Your task to perform on an android device: read, delete, or share a saved page in the chrome app Image 0: 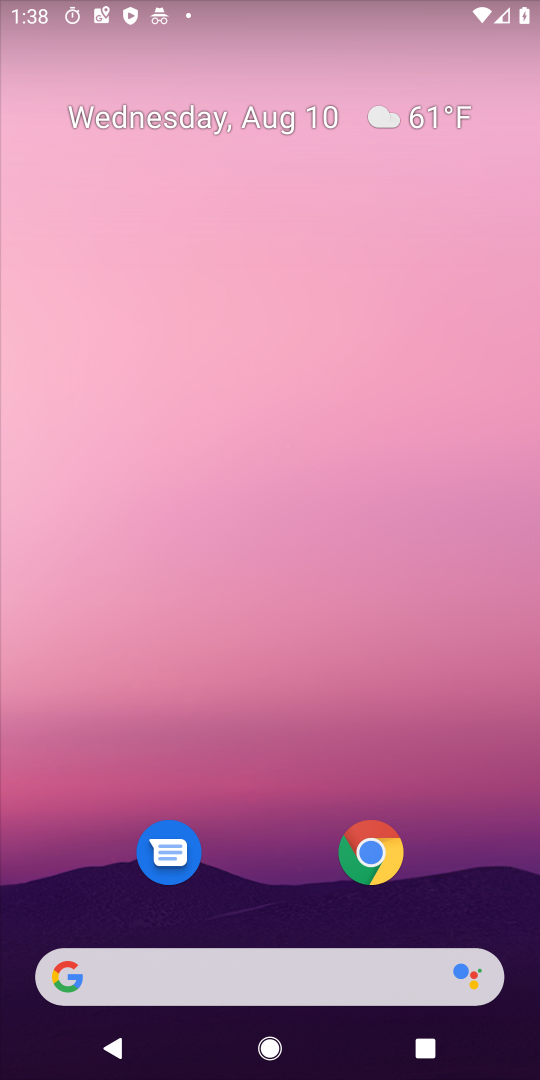
Step 0: drag from (261, 849) to (390, 109)
Your task to perform on an android device: read, delete, or share a saved page in the chrome app Image 1: 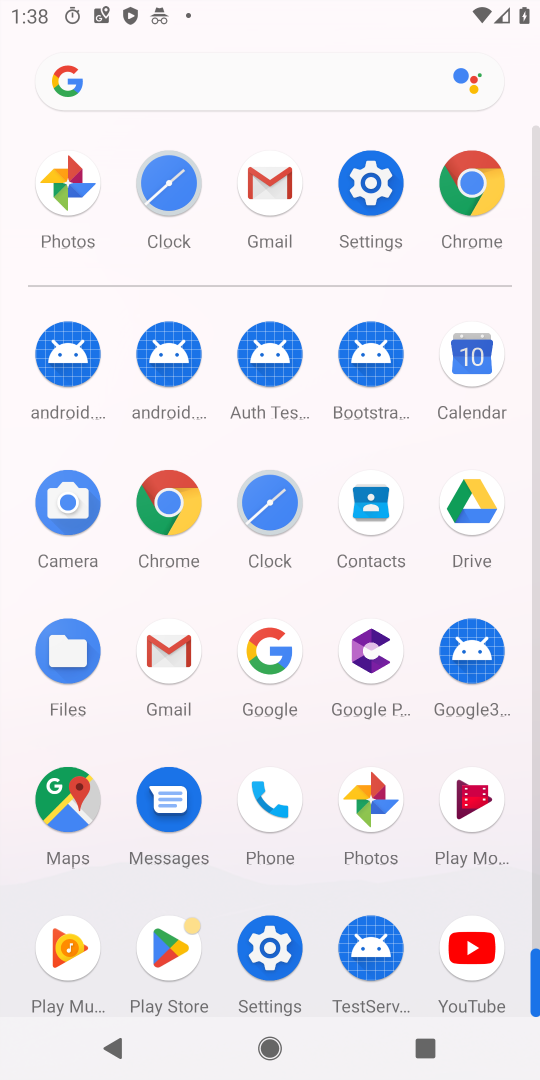
Step 1: click (171, 499)
Your task to perform on an android device: read, delete, or share a saved page in the chrome app Image 2: 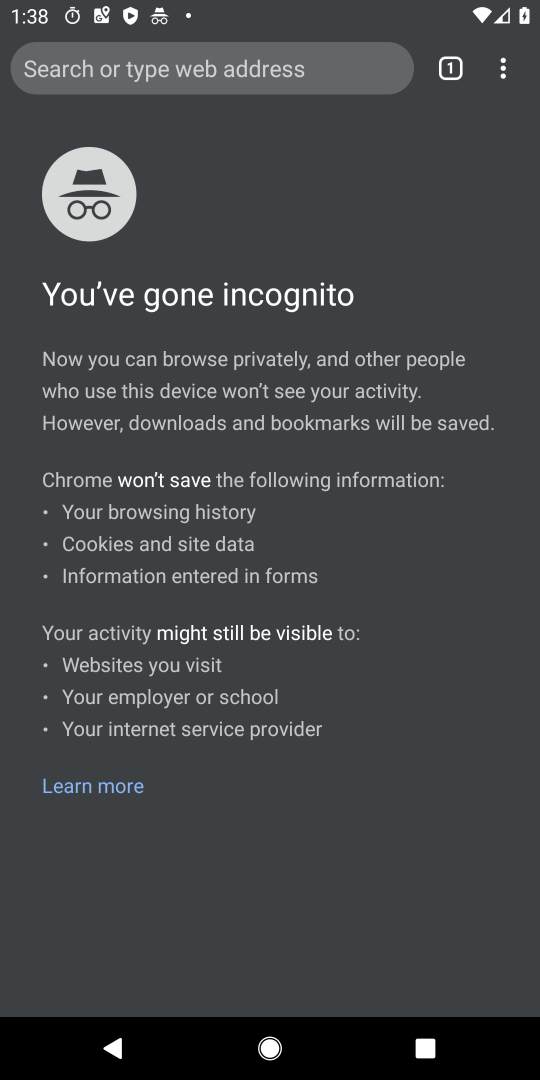
Step 2: task complete